Your task to perform on an android device: Go to battery settings Image 0: 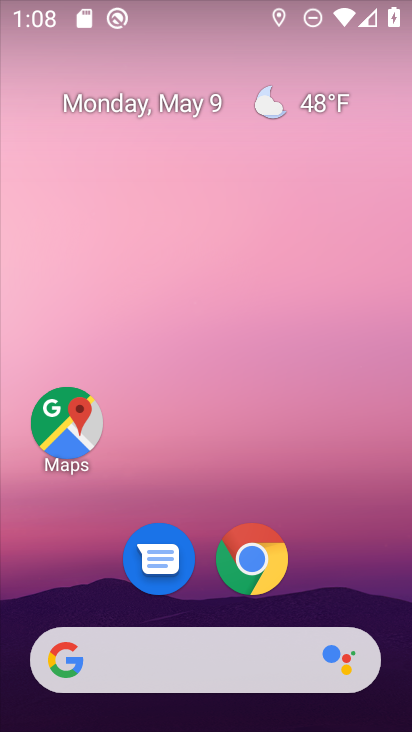
Step 0: click (361, 146)
Your task to perform on an android device: Go to battery settings Image 1: 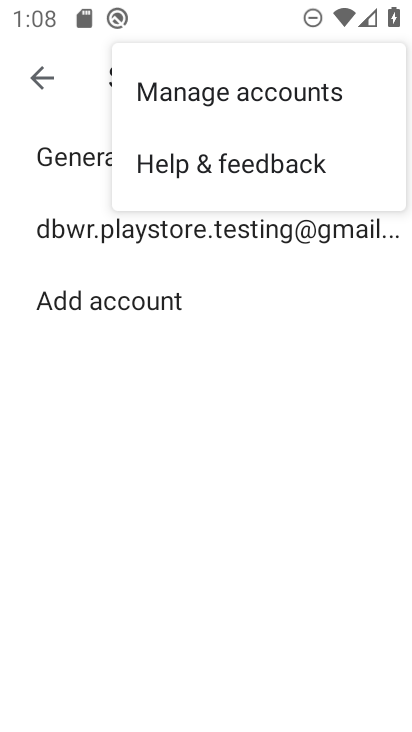
Step 1: press home button
Your task to perform on an android device: Go to battery settings Image 2: 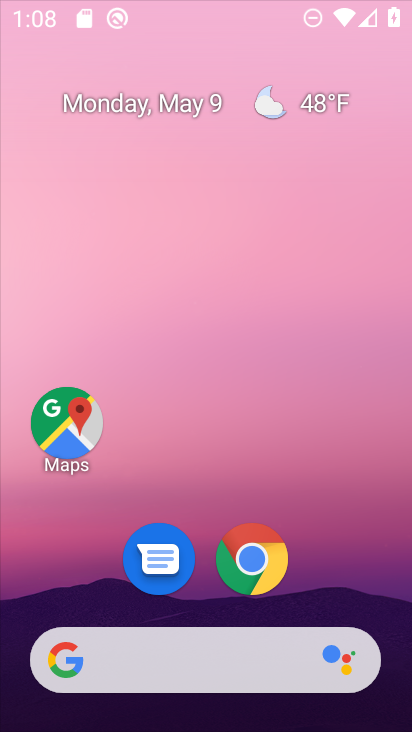
Step 2: drag from (47, 612) to (267, 123)
Your task to perform on an android device: Go to battery settings Image 3: 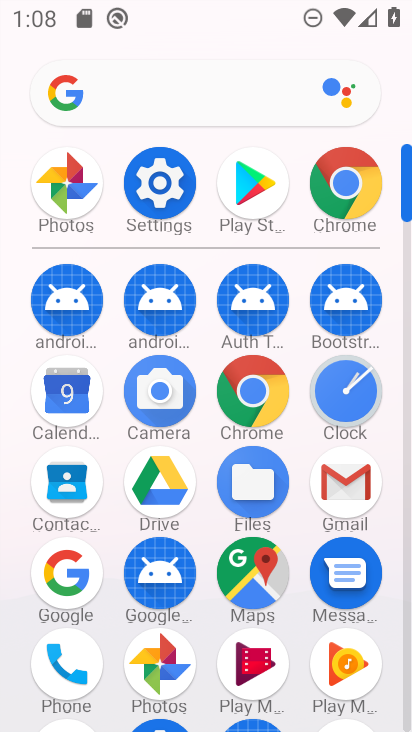
Step 3: click (163, 177)
Your task to perform on an android device: Go to battery settings Image 4: 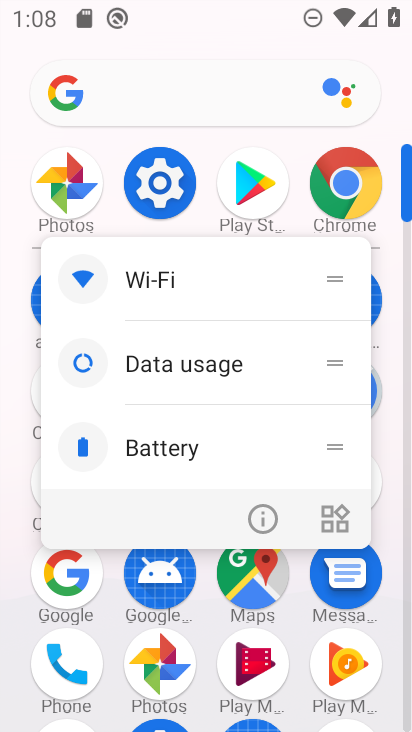
Step 4: click (274, 521)
Your task to perform on an android device: Go to battery settings Image 5: 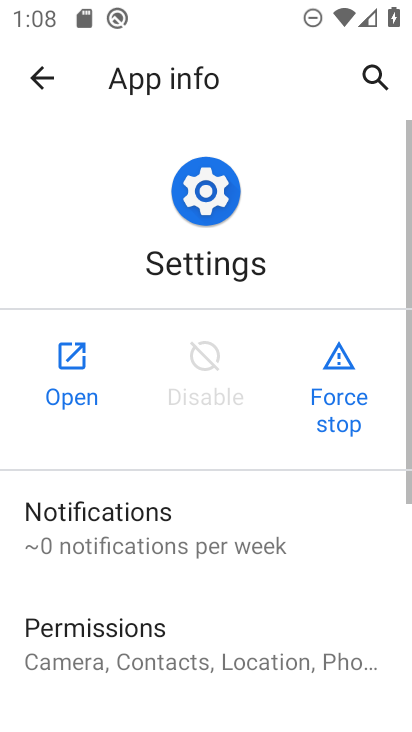
Step 5: click (65, 355)
Your task to perform on an android device: Go to battery settings Image 6: 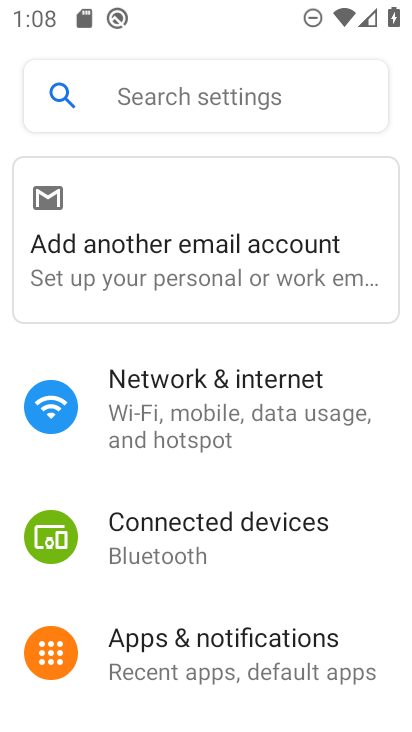
Step 6: drag from (251, 559) to (321, 150)
Your task to perform on an android device: Go to battery settings Image 7: 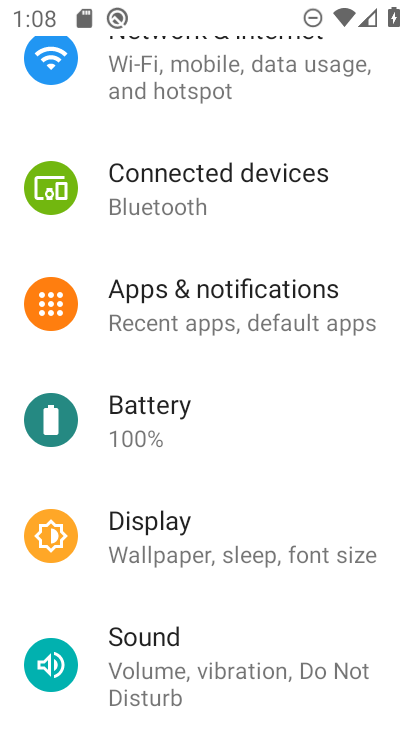
Step 7: click (195, 442)
Your task to perform on an android device: Go to battery settings Image 8: 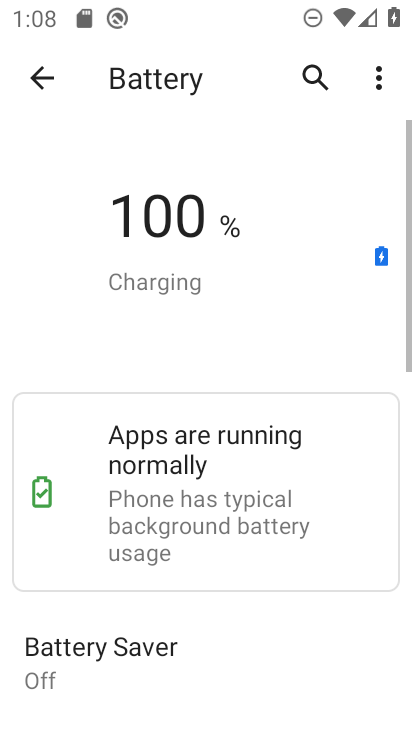
Step 8: task complete